Your task to perform on an android device: toggle javascript in the chrome app Image 0: 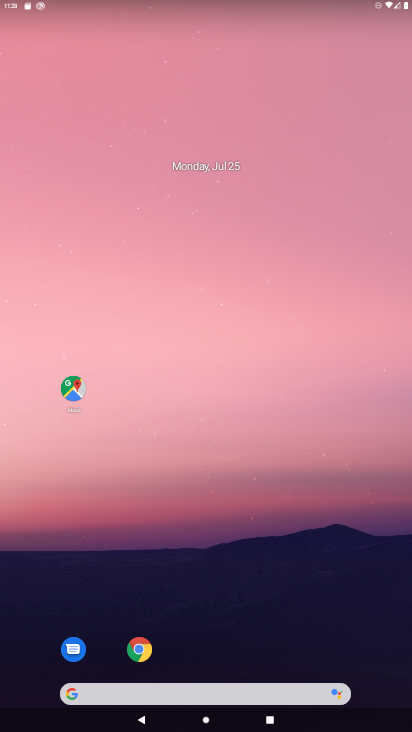
Step 0: click (142, 649)
Your task to perform on an android device: toggle javascript in the chrome app Image 1: 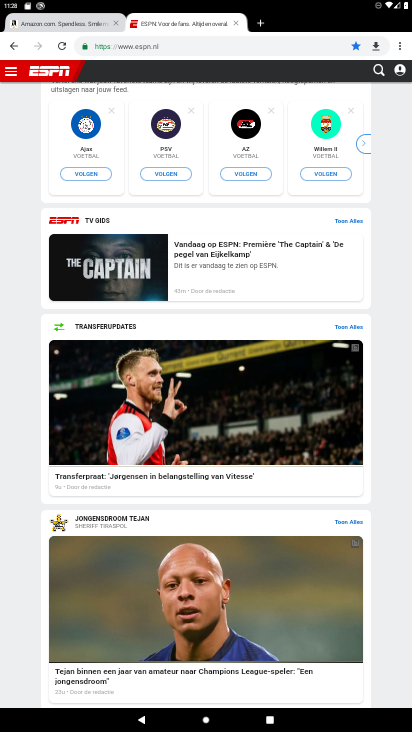
Step 1: click (400, 49)
Your task to perform on an android device: toggle javascript in the chrome app Image 2: 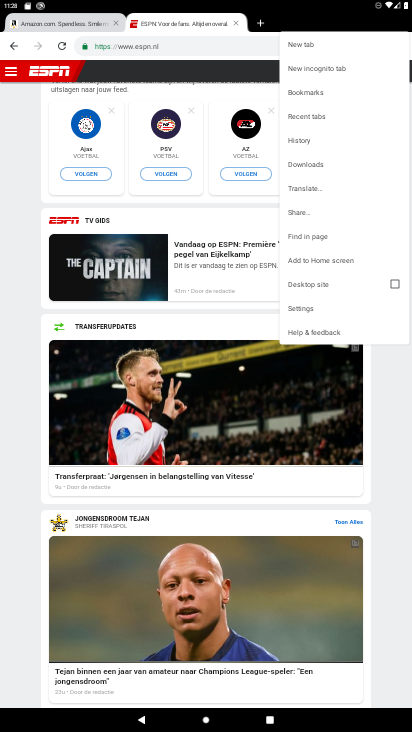
Step 2: click (304, 304)
Your task to perform on an android device: toggle javascript in the chrome app Image 3: 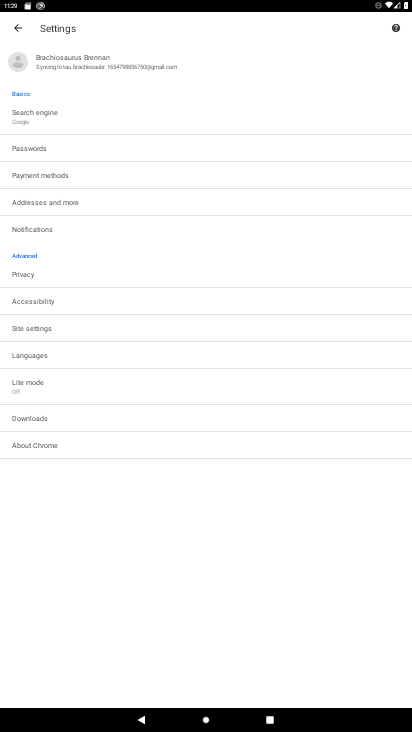
Step 3: click (22, 325)
Your task to perform on an android device: toggle javascript in the chrome app Image 4: 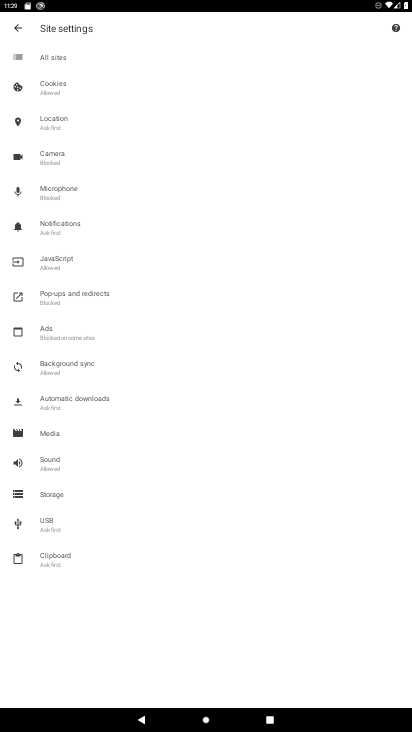
Step 4: click (55, 254)
Your task to perform on an android device: toggle javascript in the chrome app Image 5: 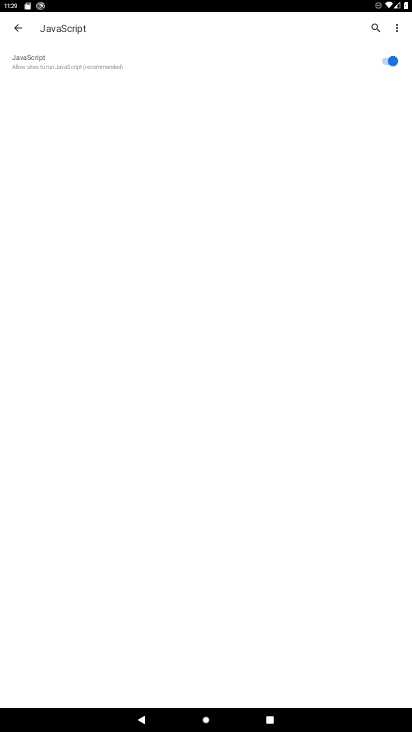
Step 5: click (385, 62)
Your task to perform on an android device: toggle javascript in the chrome app Image 6: 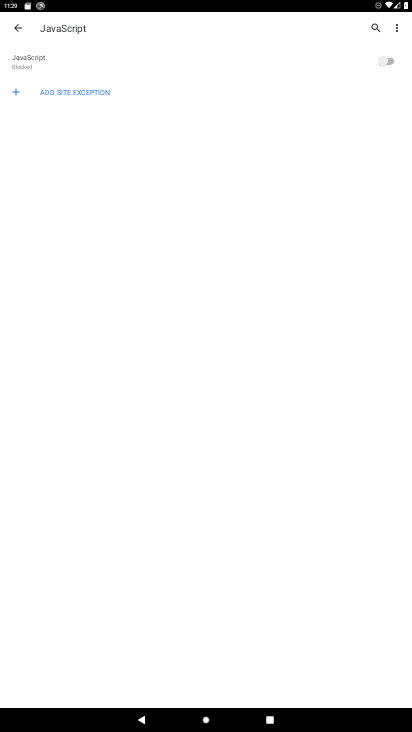
Step 6: task complete